Your task to perform on an android device: turn on notifications settings in the gmail app Image 0: 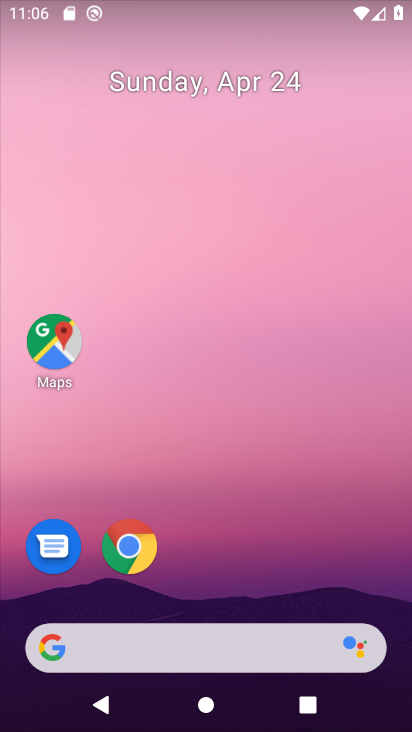
Step 0: drag from (205, 546) to (246, 19)
Your task to perform on an android device: turn on notifications settings in the gmail app Image 1: 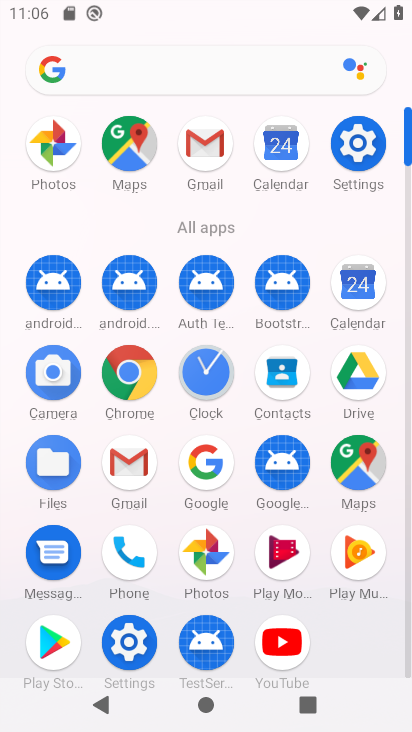
Step 1: click (212, 180)
Your task to perform on an android device: turn on notifications settings in the gmail app Image 2: 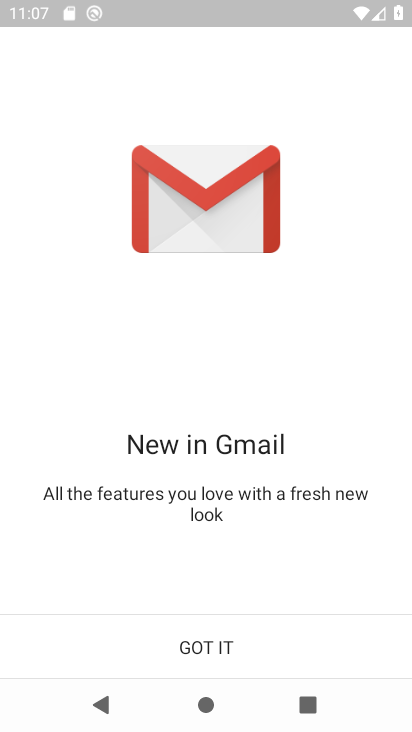
Step 2: click (189, 663)
Your task to perform on an android device: turn on notifications settings in the gmail app Image 3: 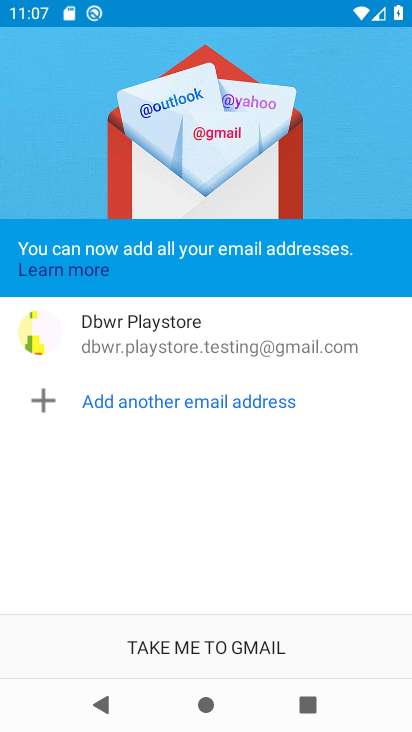
Step 3: click (189, 663)
Your task to perform on an android device: turn on notifications settings in the gmail app Image 4: 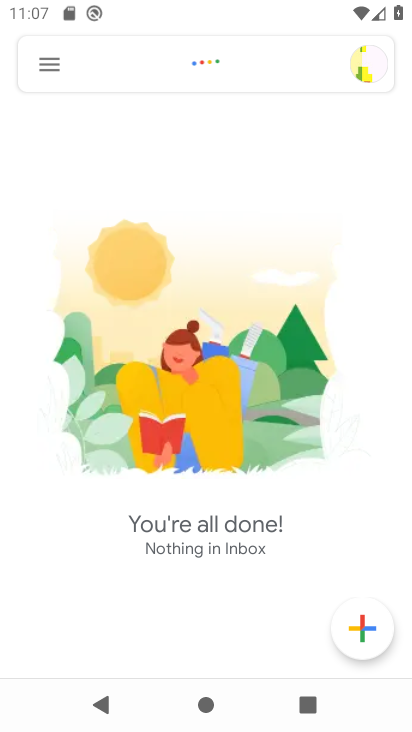
Step 4: click (42, 62)
Your task to perform on an android device: turn on notifications settings in the gmail app Image 5: 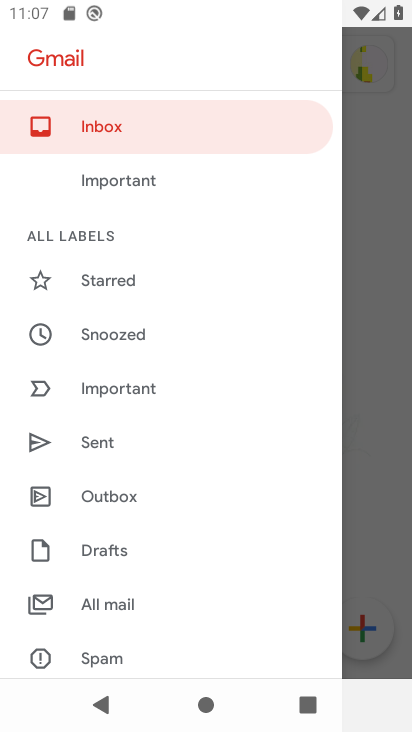
Step 5: drag from (166, 625) to (216, 167)
Your task to perform on an android device: turn on notifications settings in the gmail app Image 6: 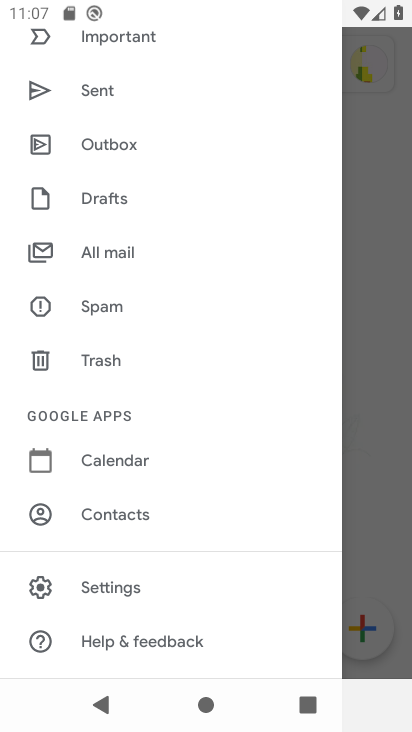
Step 6: click (121, 592)
Your task to perform on an android device: turn on notifications settings in the gmail app Image 7: 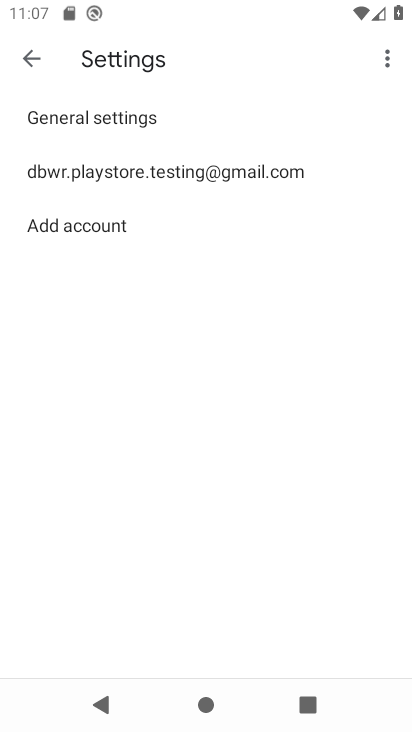
Step 7: click (138, 126)
Your task to perform on an android device: turn on notifications settings in the gmail app Image 8: 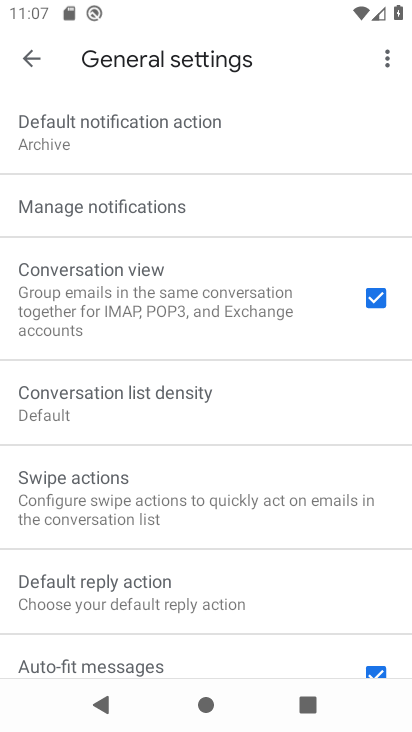
Step 8: click (181, 226)
Your task to perform on an android device: turn on notifications settings in the gmail app Image 9: 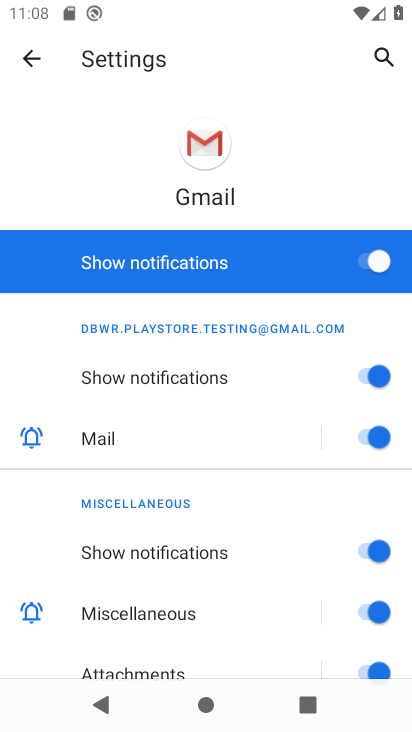
Step 9: task complete